Your task to perform on an android device: Open wifi settings Image 0: 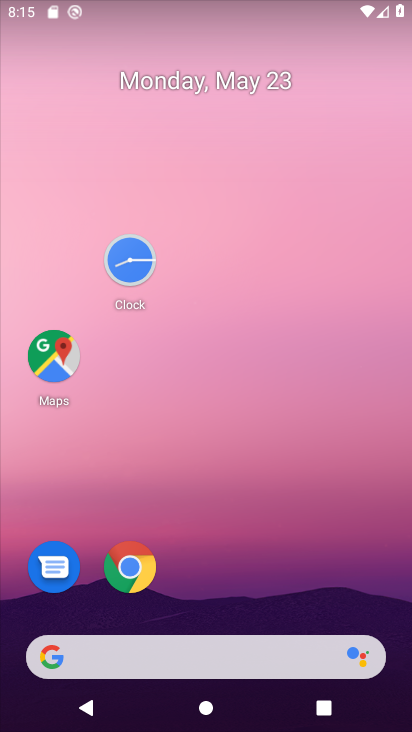
Step 0: drag from (208, 588) to (285, 196)
Your task to perform on an android device: Open wifi settings Image 1: 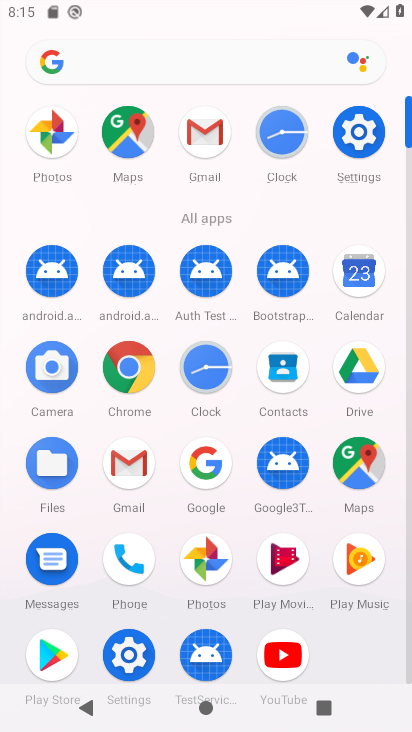
Step 1: click (343, 123)
Your task to perform on an android device: Open wifi settings Image 2: 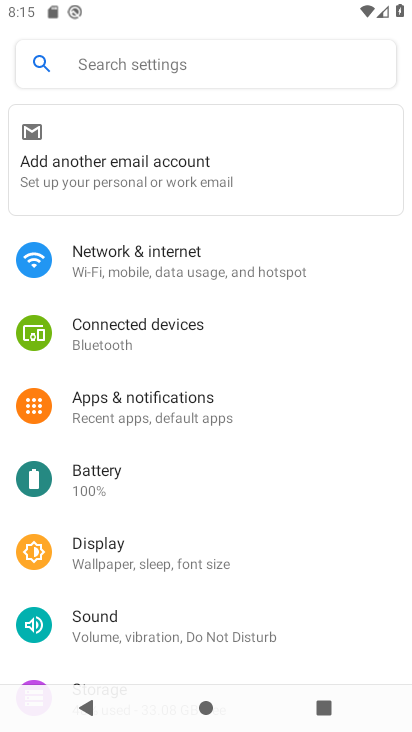
Step 2: click (174, 245)
Your task to perform on an android device: Open wifi settings Image 3: 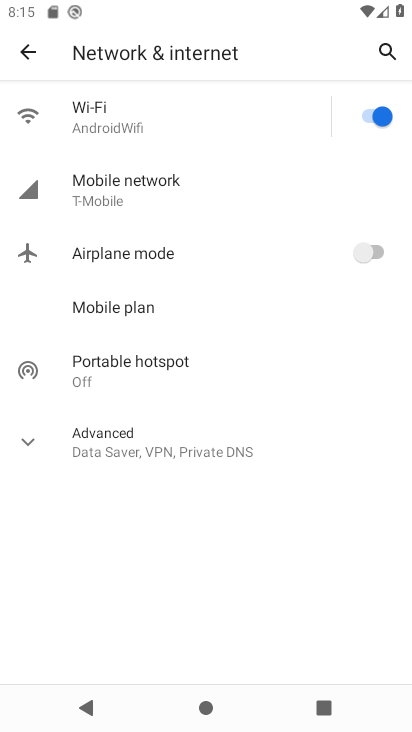
Step 3: click (189, 116)
Your task to perform on an android device: Open wifi settings Image 4: 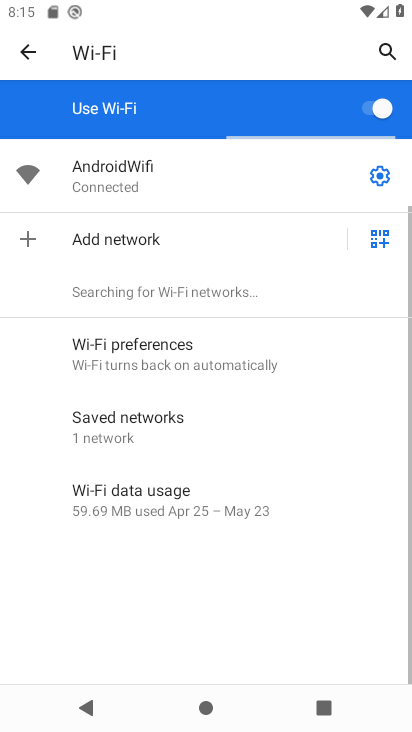
Step 4: click (383, 171)
Your task to perform on an android device: Open wifi settings Image 5: 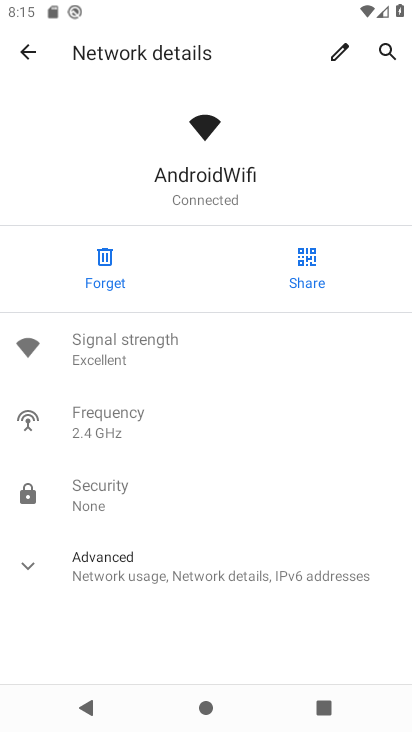
Step 5: task complete